Your task to perform on an android device: delete location history Image 0: 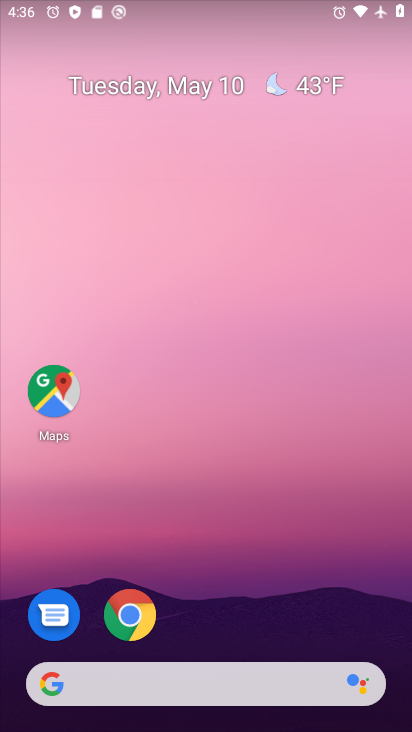
Step 0: drag from (247, 547) to (239, 58)
Your task to perform on an android device: delete location history Image 1: 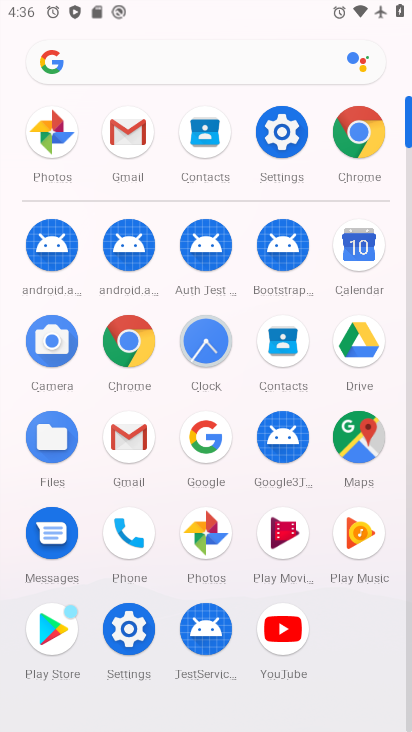
Step 1: drag from (18, 581) to (13, 273)
Your task to perform on an android device: delete location history Image 2: 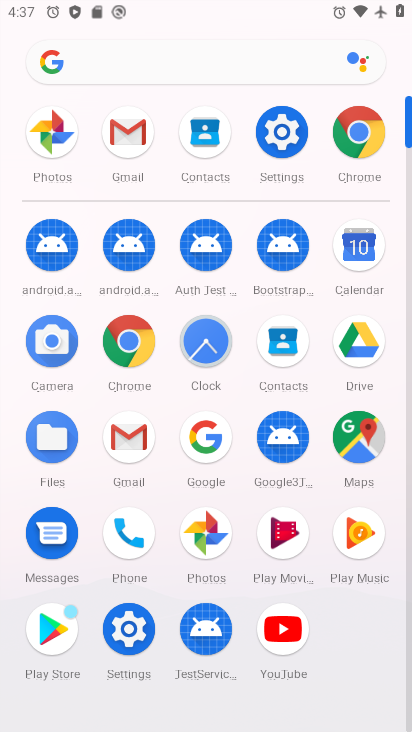
Step 2: click (123, 627)
Your task to perform on an android device: delete location history Image 3: 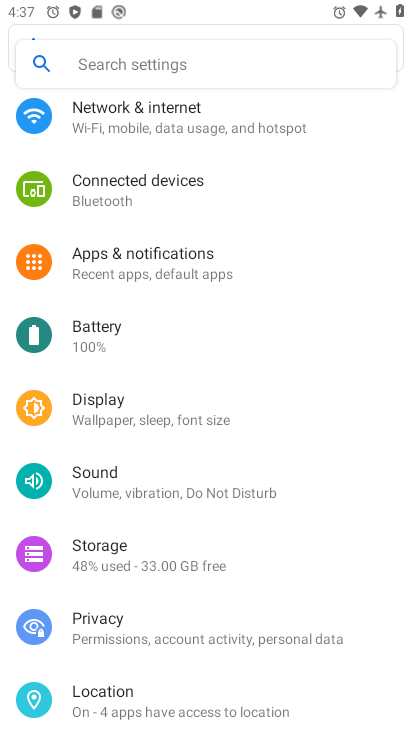
Step 3: drag from (201, 517) to (248, 227)
Your task to perform on an android device: delete location history Image 4: 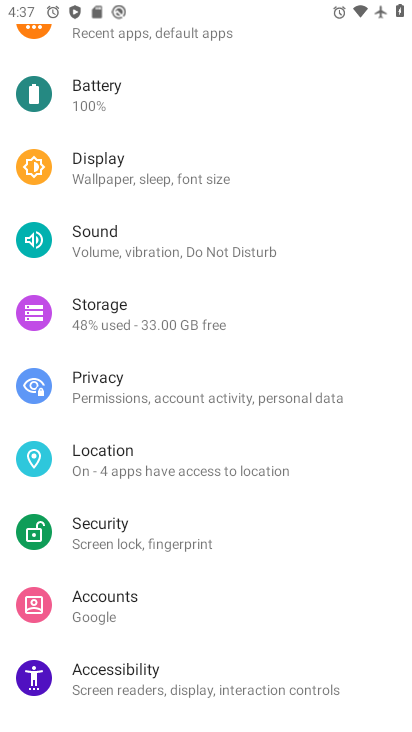
Step 4: click (137, 456)
Your task to perform on an android device: delete location history Image 5: 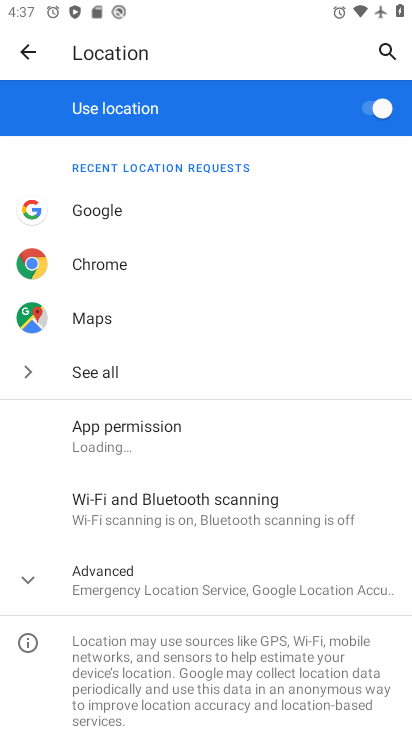
Step 5: click (131, 590)
Your task to perform on an android device: delete location history Image 6: 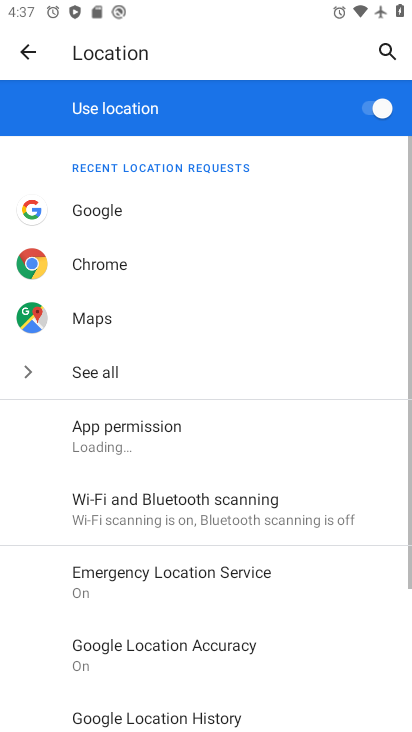
Step 6: drag from (276, 573) to (289, 187)
Your task to perform on an android device: delete location history Image 7: 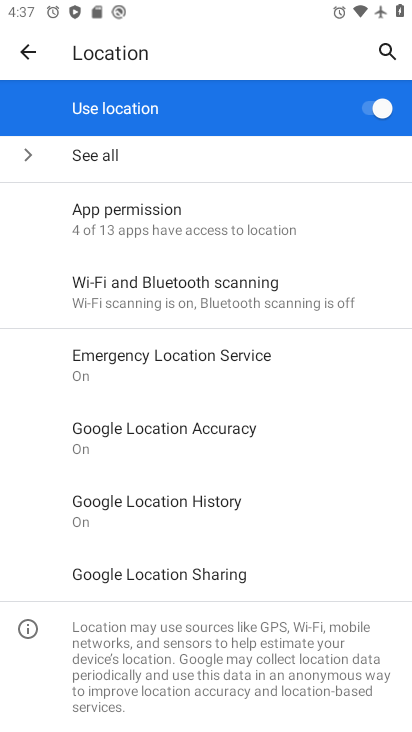
Step 7: click (226, 497)
Your task to perform on an android device: delete location history Image 8: 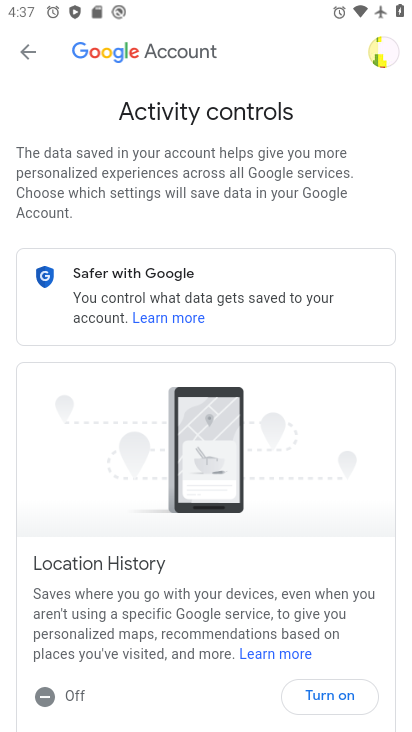
Step 8: drag from (229, 554) to (236, 202)
Your task to perform on an android device: delete location history Image 9: 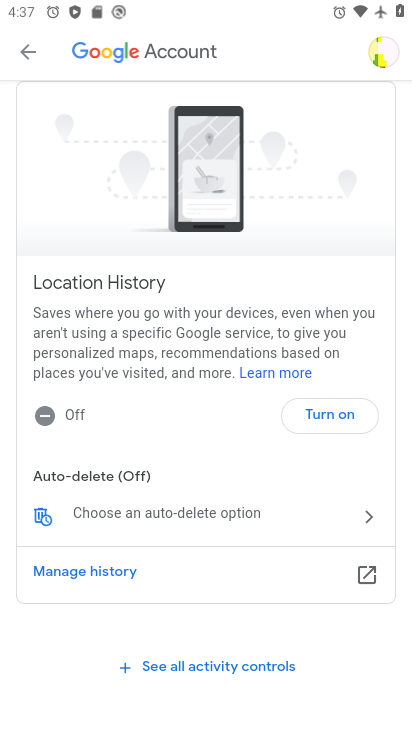
Step 9: click (34, 507)
Your task to perform on an android device: delete location history Image 10: 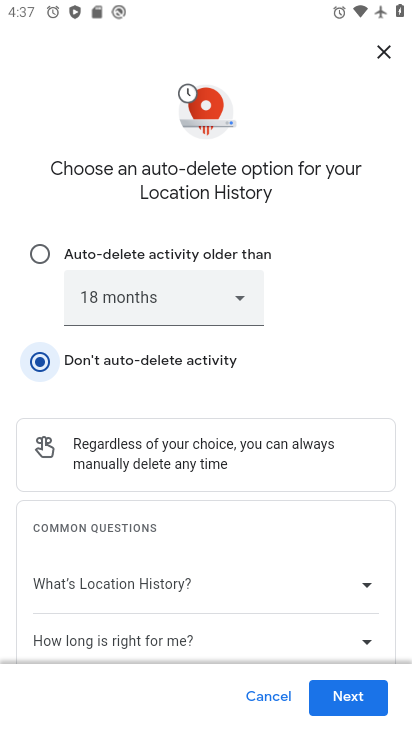
Step 10: drag from (288, 614) to (303, 193)
Your task to perform on an android device: delete location history Image 11: 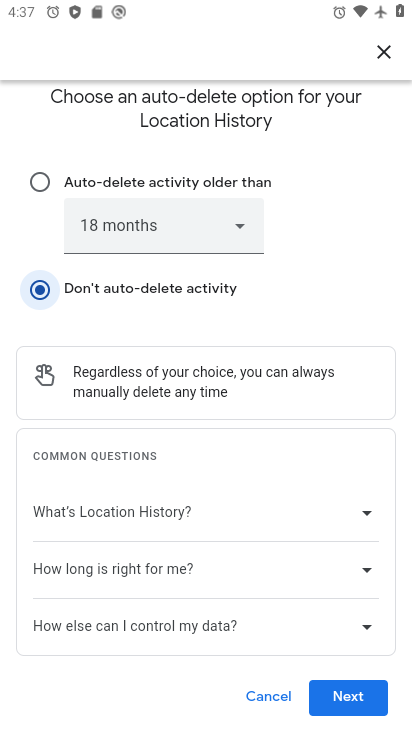
Step 11: click (334, 688)
Your task to perform on an android device: delete location history Image 12: 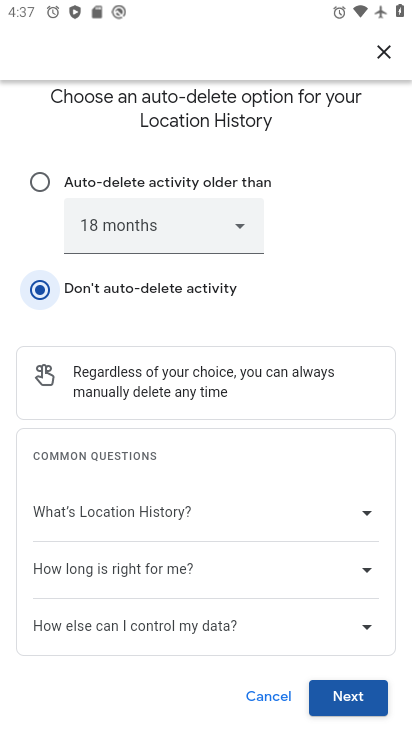
Step 12: click (341, 697)
Your task to perform on an android device: delete location history Image 13: 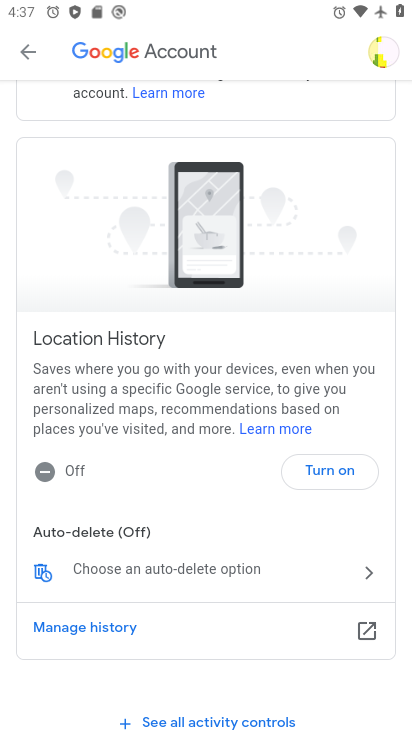
Step 13: task complete